Your task to perform on an android device: Open maps Image 0: 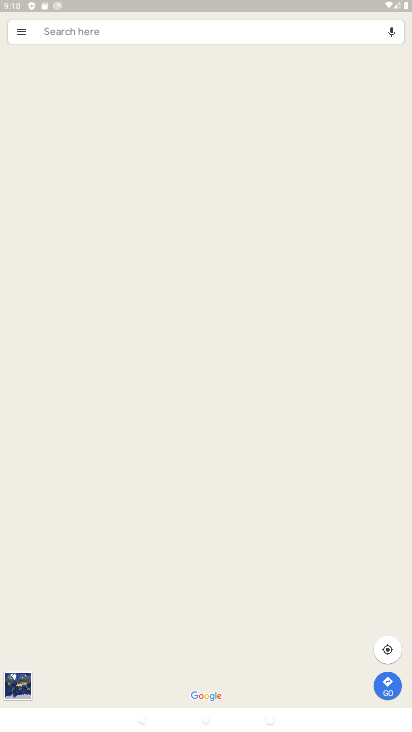
Step 0: click (272, 162)
Your task to perform on an android device: Open maps Image 1: 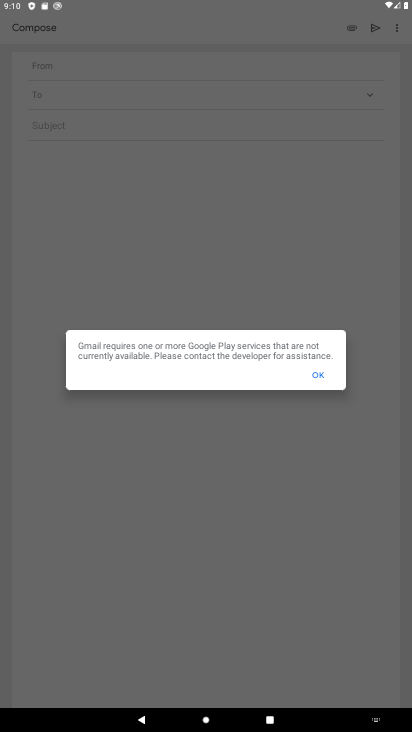
Step 1: press home button
Your task to perform on an android device: Open maps Image 2: 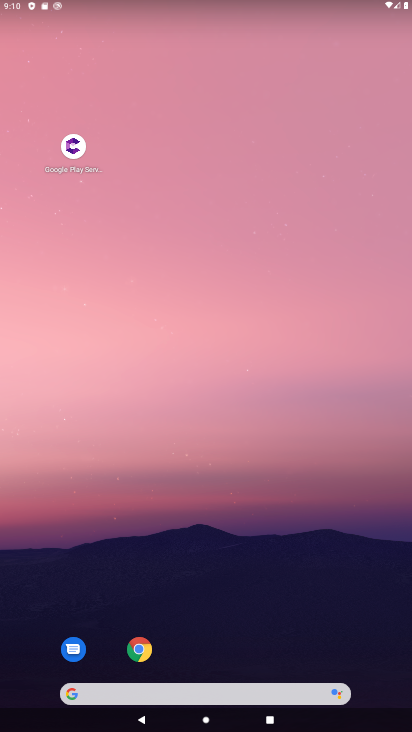
Step 2: drag from (51, 662) to (219, 338)
Your task to perform on an android device: Open maps Image 3: 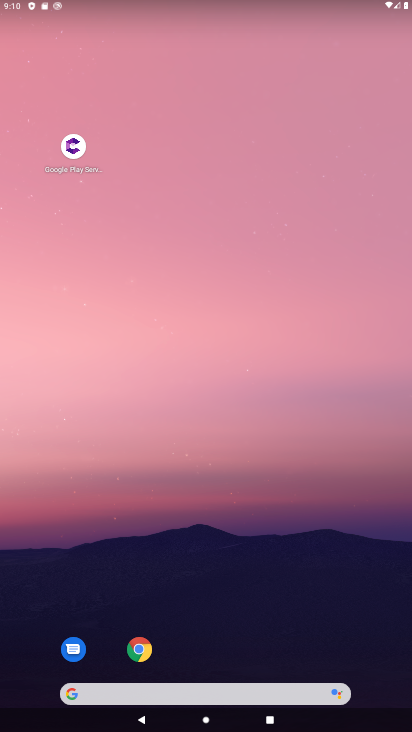
Step 3: drag from (31, 621) to (193, 200)
Your task to perform on an android device: Open maps Image 4: 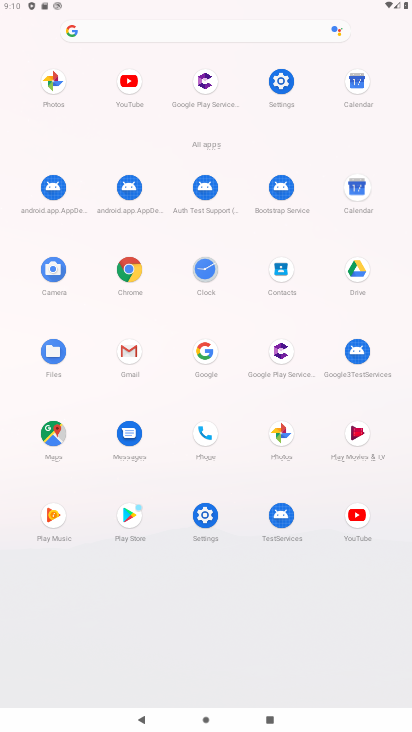
Step 4: click (45, 440)
Your task to perform on an android device: Open maps Image 5: 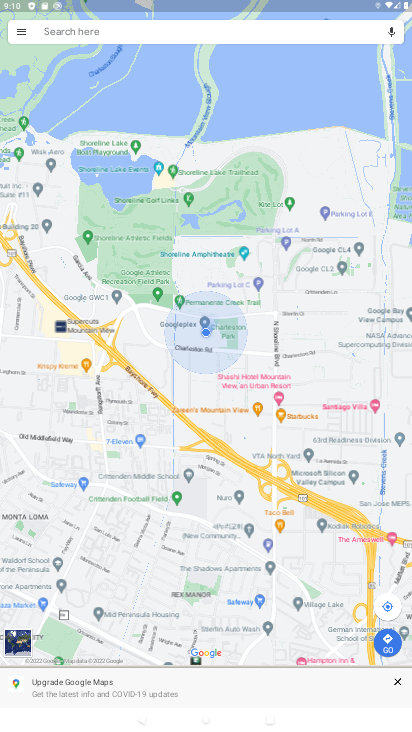
Step 5: task complete